Your task to perform on an android device: Go to Google maps Image 0: 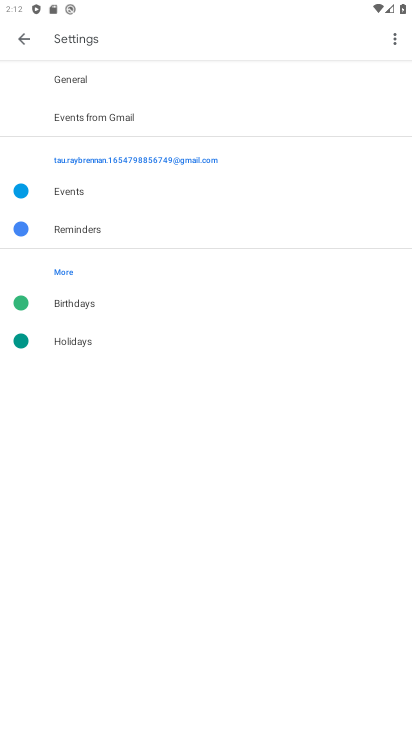
Step 0: press home button
Your task to perform on an android device: Go to Google maps Image 1: 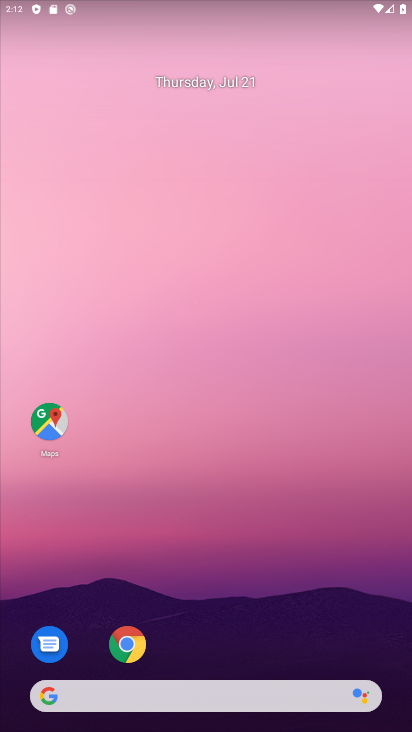
Step 1: click (132, 646)
Your task to perform on an android device: Go to Google maps Image 2: 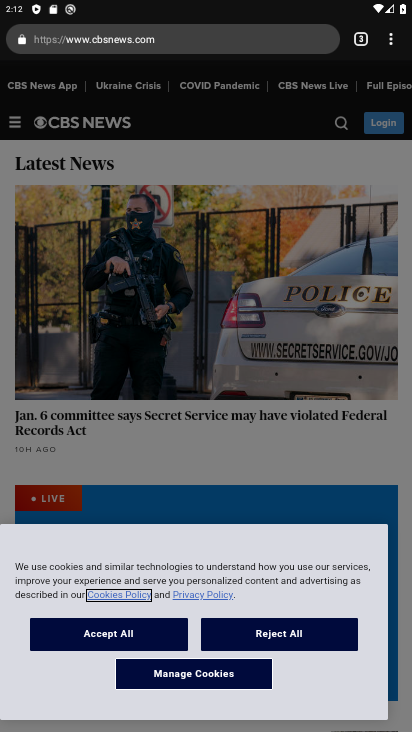
Step 2: press home button
Your task to perform on an android device: Go to Google maps Image 3: 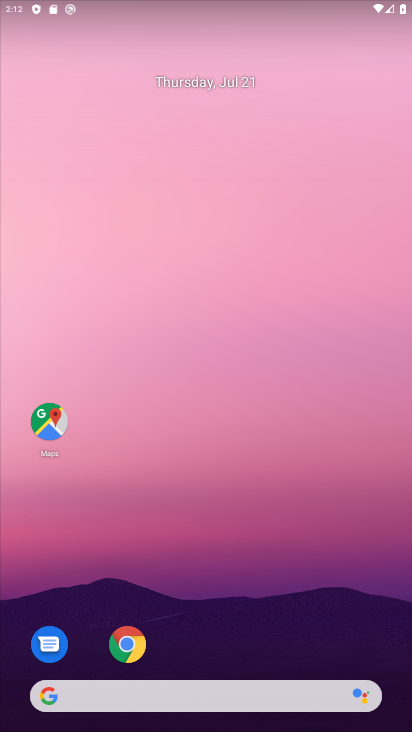
Step 3: click (49, 425)
Your task to perform on an android device: Go to Google maps Image 4: 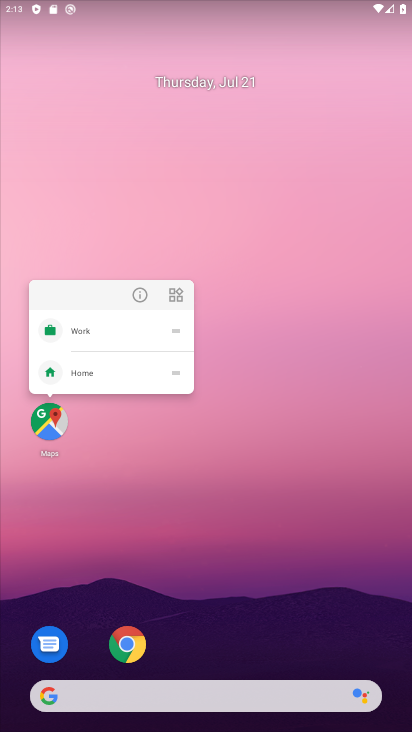
Step 4: click (49, 425)
Your task to perform on an android device: Go to Google maps Image 5: 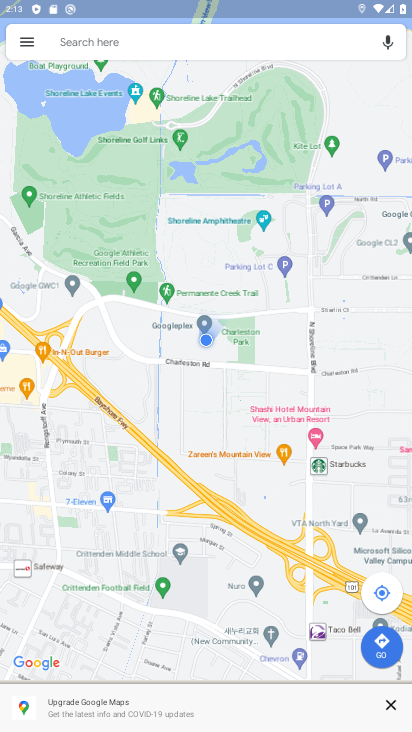
Step 5: task complete